Your task to perform on an android device: open chrome and create a bookmark for the current page Image 0: 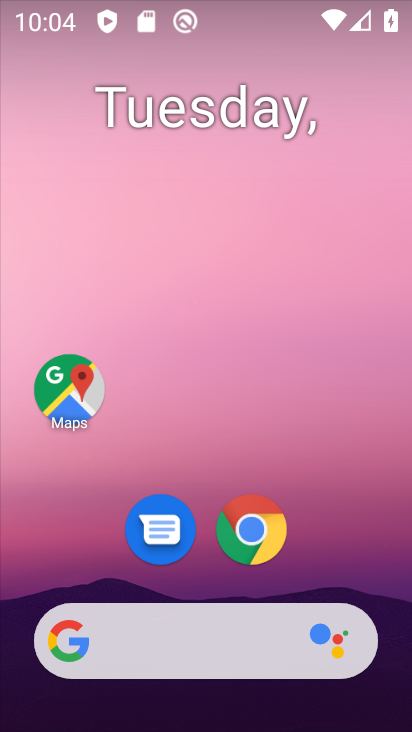
Step 0: click (259, 521)
Your task to perform on an android device: open chrome and create a bookmark for the current page Image 1: 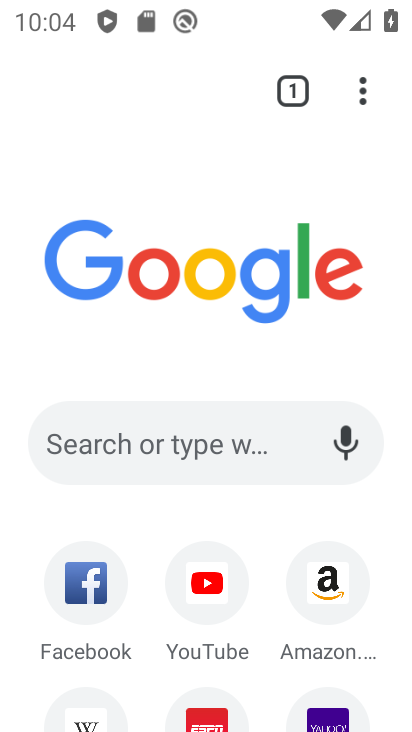
Step 1: task complete